Your task to perform on an android device: open app "McDonald's" (install if not already installed) and go to login screen Image 0: 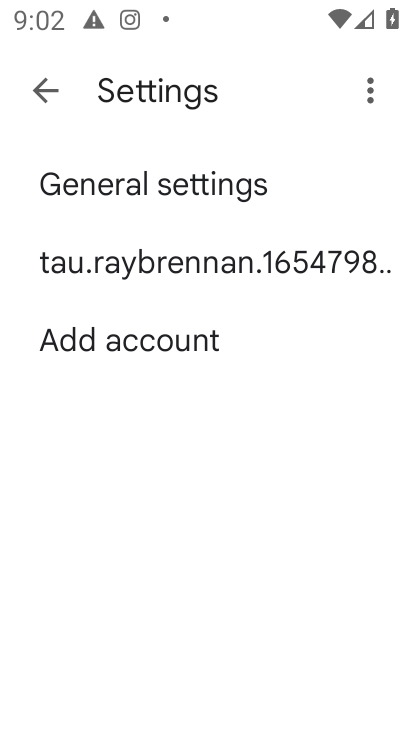
Step 0: press home button
Your task to perform on an android device: open app "McDonald's" (install if not already installed) and go to login screen Image 1: 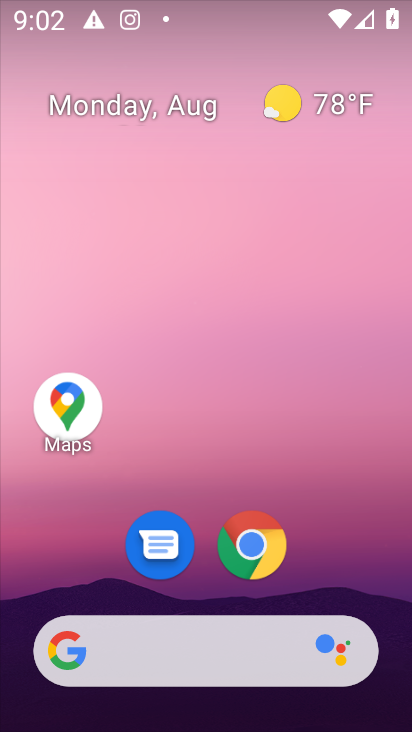
Step 1: drag from (331, 484) to (337, 68)
Your task to perform on an android device: open app "McDonald's" (install if not already installed) and go to login screen Image 2: 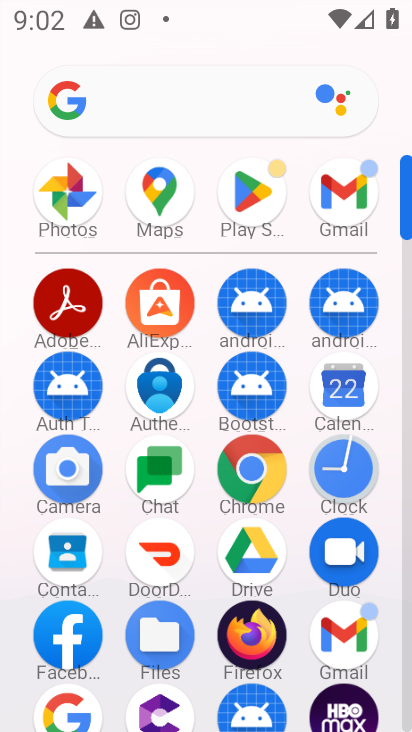
Step 2: click (260, 189)
Your task to perform on an android device: open app "McDonald's" (install if not already installed) and go to login screen Image 3: 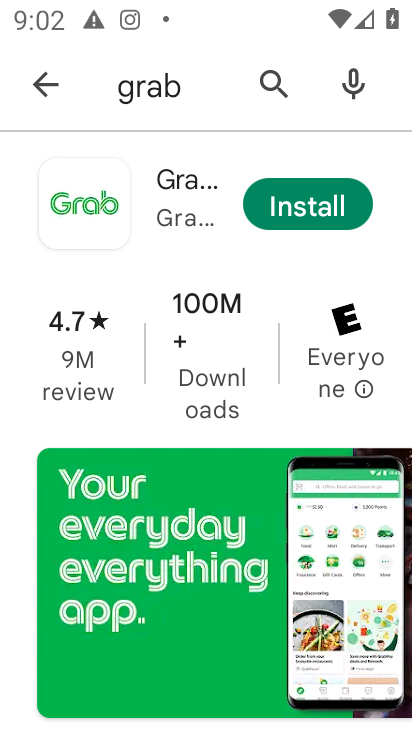
Step 3: press back button
Your task to perform on an android device: open app "McDonald's" (install if not already installed) and go to login screen Image 4: 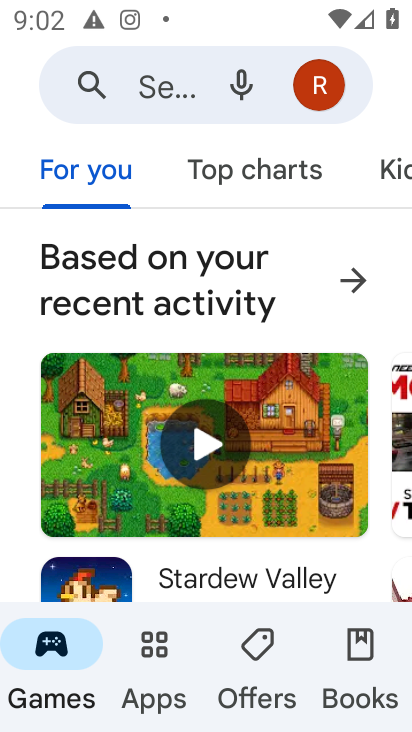
Step 4: click (151, 87)
Your task to perform on an android device: open app "McDonald's" (install if not already installed) and go to login screen Image 5: 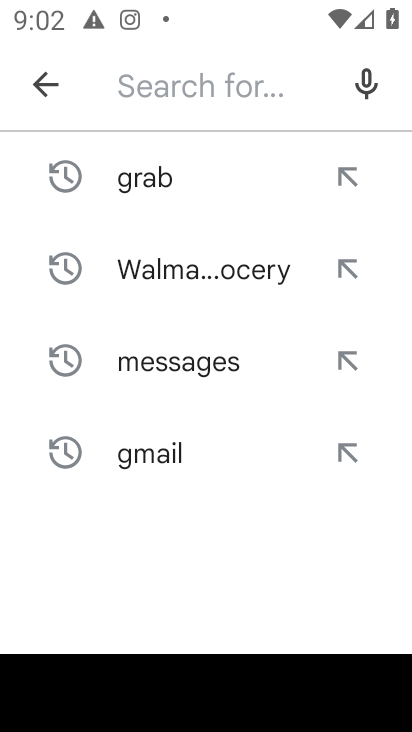
Step 5: type "McDonald's"
Your task to perform on an android device: open app "McDonald's" (install if not already installed) and go to login screen Image 6: 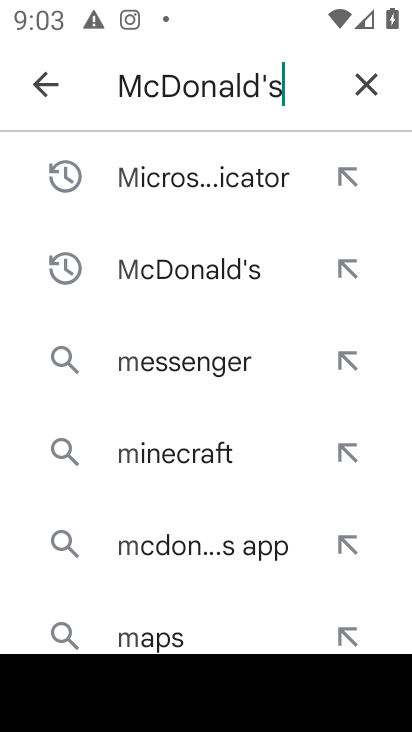
Step 6: press enter
Your task to perform on an android device: open app "McDonald's" (install if not already installed) and go to login screen Image 7: 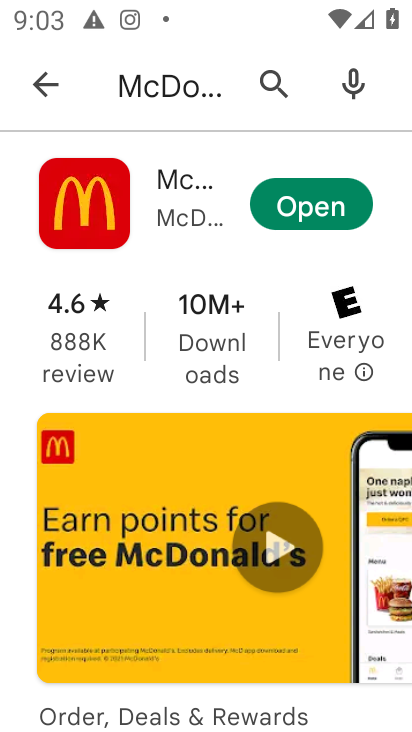
Step 7: click (307, 198)
Your task to perform on an android device: open app "McDonald's" (install if not already installed) and go to login screen Image 8: 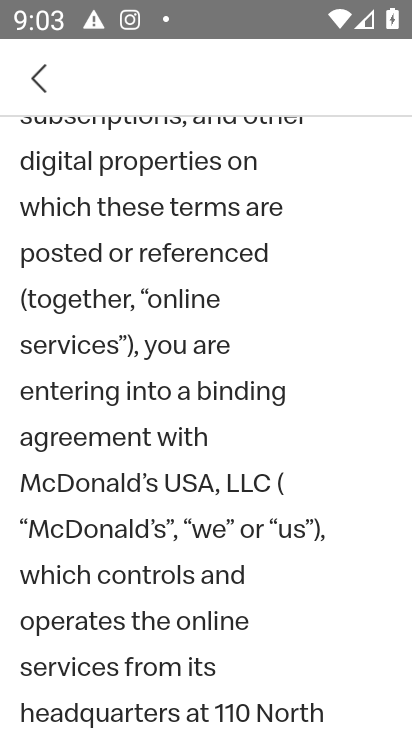
Step 8: press back button
Your task to perform on an android device: open app "McDonald's" (install if not already installed) and go to login screen Image 9: 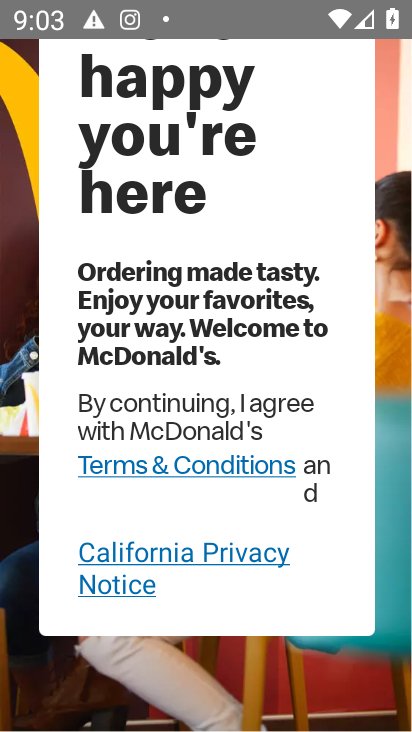
Step 9: press back button
Your task to perform on an android device: open app "McDonald's" (install if not already installed) and go to login screen Image 10: 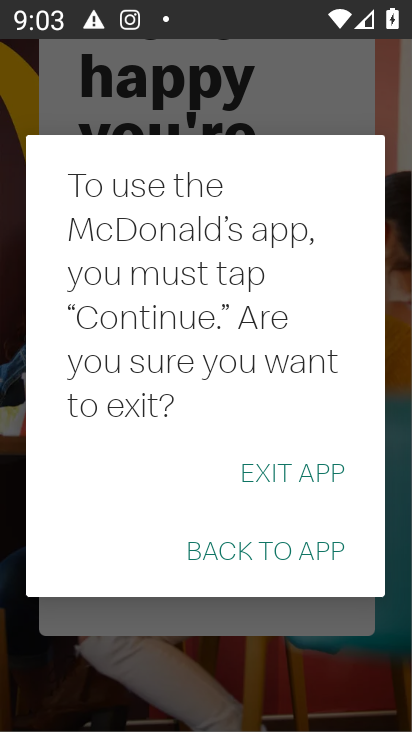
Step 10: press back button
Your task to perform on an android device: open app "McDonald's" (install if not already installed) and go to login screen Image 11: 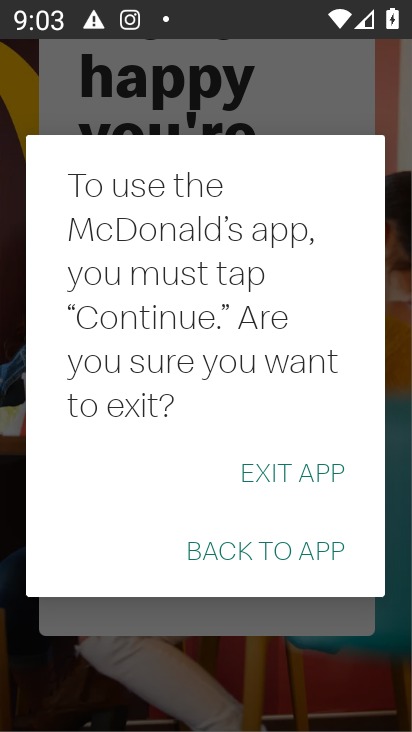
Step 11: click (272, 555)
Your task to perform on an android device: open app "McDonald's" (install if not already installed) and go to login screen Image 12: 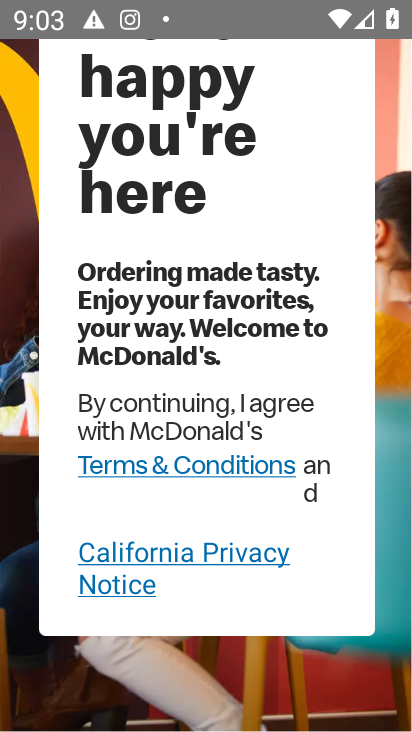
Step 12: task complete